Your task to perform on an android device: open wifi settings Image 0: 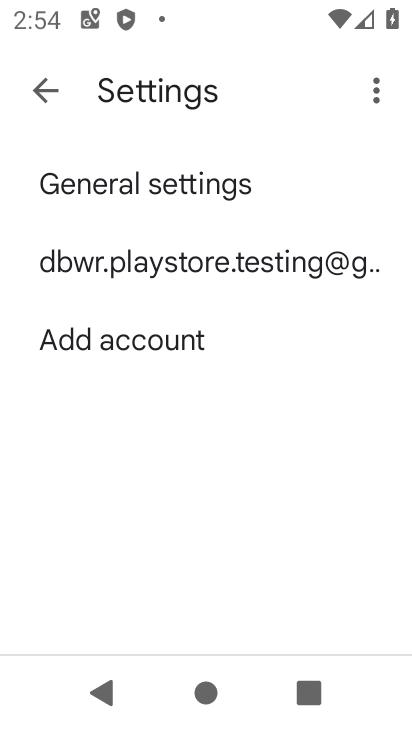
Step 0: press home button
Your task to perform on an android device: open wifi settings Image 1: 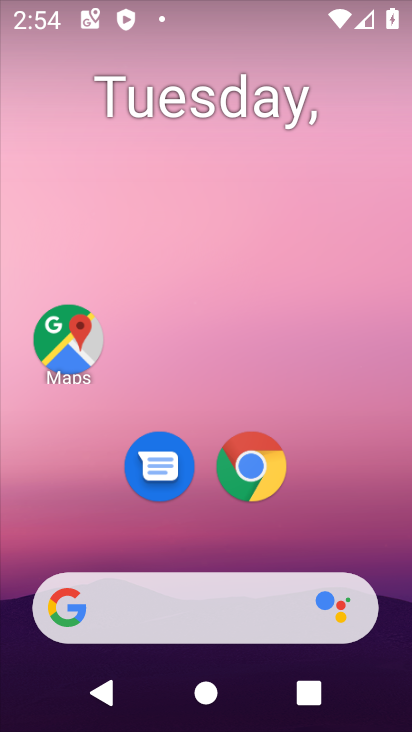
Step 1: drag from (384, 541) to (268, 3)
Your task to perform on an android device: open wifi settings Image 2: 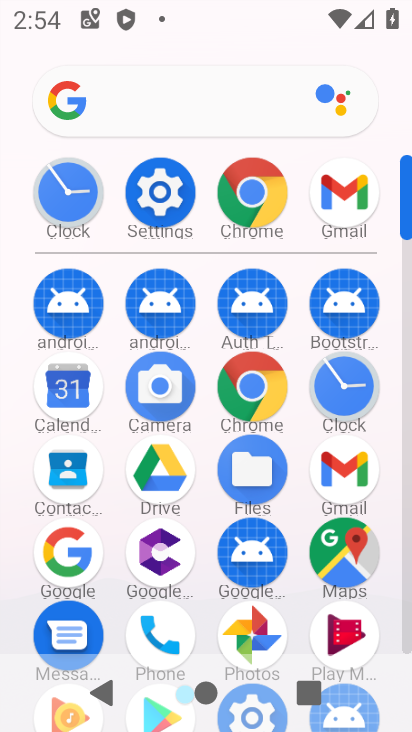
Step 2: click (168, 170)
Your task to perform on an android device: open wifi settings Image 3: 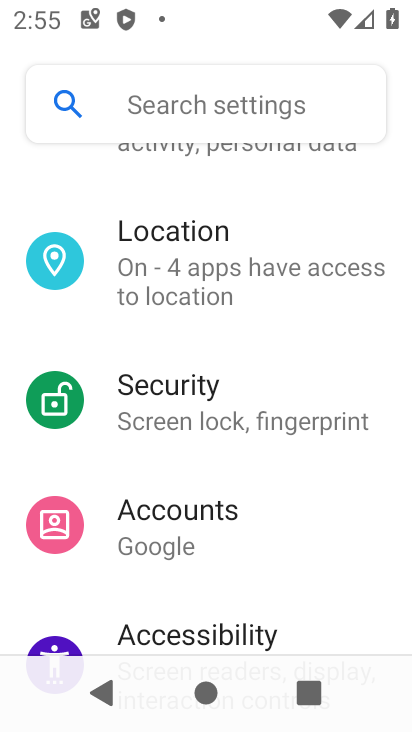
Step 3: task complete